Your task to perform on an android device: refresh tabs in the chrome app Image 0: 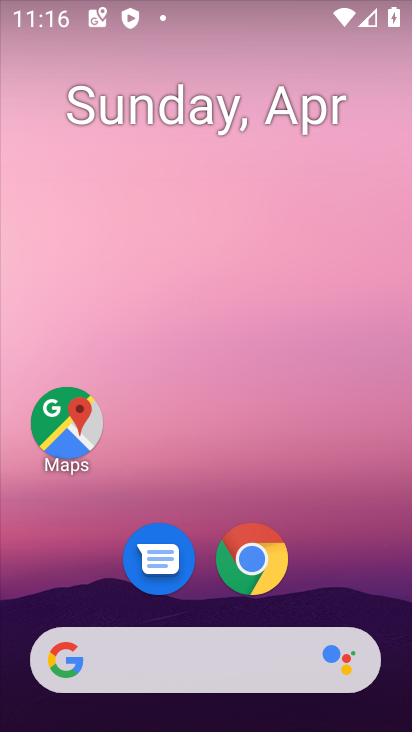
Step 0: click (236, 589)
Your task to perform on an android device: refresh tabs in the chrome app Image 1: 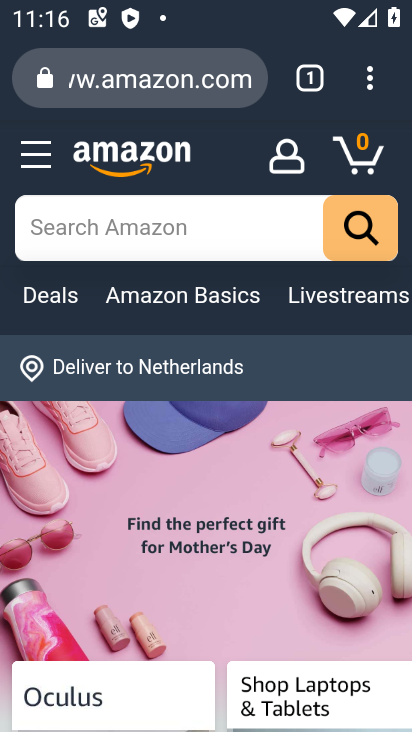
Step 1: click (369, 69)
Your task to perform on an android device: refresh tabs in the chrome app Image 2: 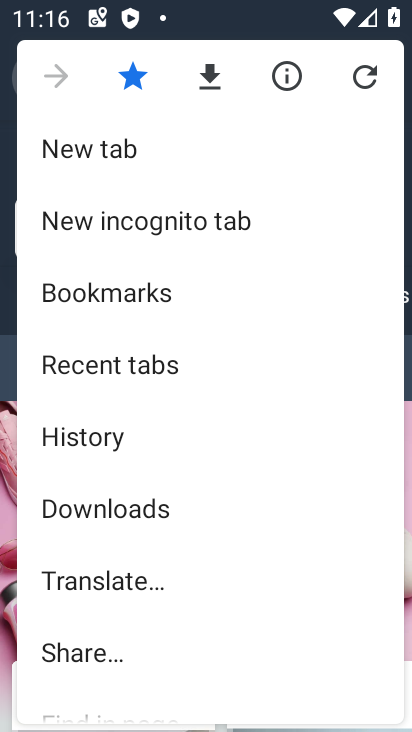
Step 2: click (367, 82)
Your task to perform on an android device: refresh tabs in the chrome app Image 3: 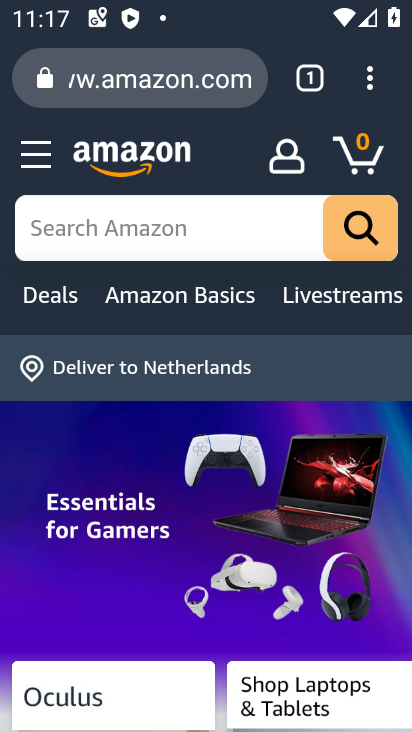
Step 3: task complete